Your task to perform on an android device: Go to internet settings Image 0: 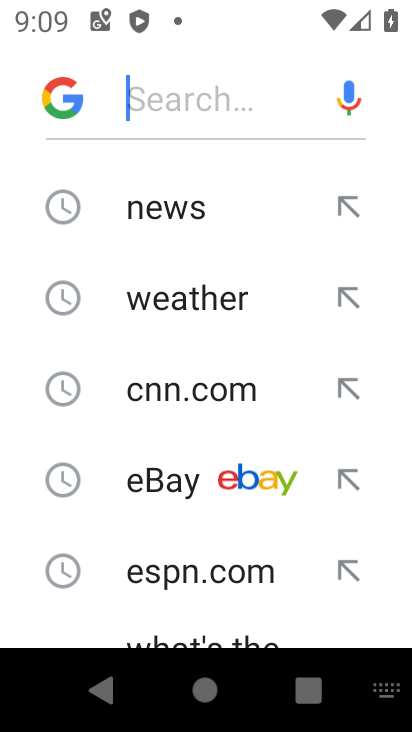
Step 0: press back button
Your task to perform on an android device: Go to internet settings Image 1: 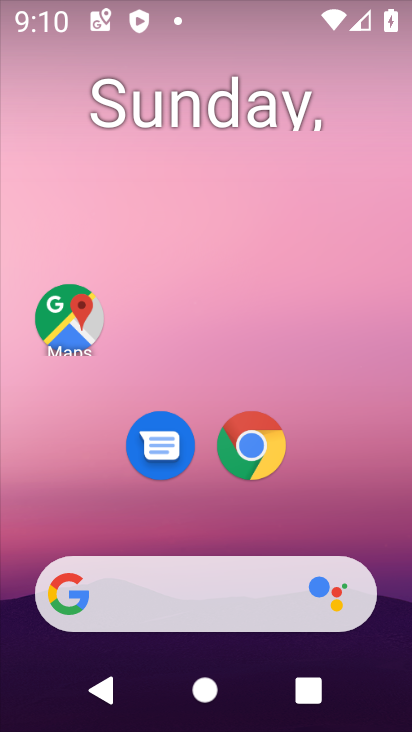
Step 1: drag from (386, 539) to (318, 87)
Your task to perform on an android device: Go to internet settings Image 2: 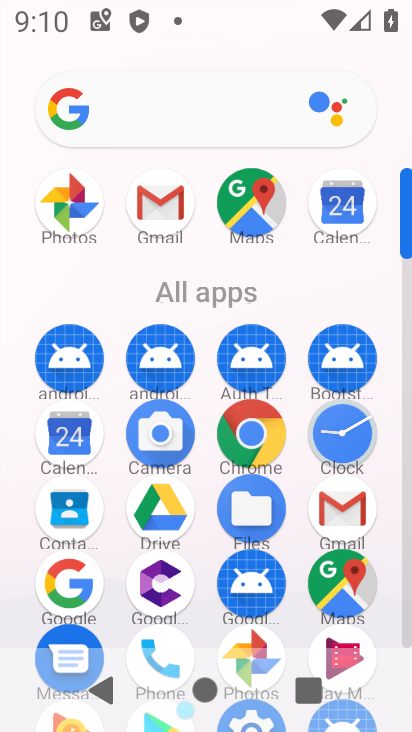
Step 2: click (406, 623)
Your task to perform on an android device: Go to internet settings Image 3: 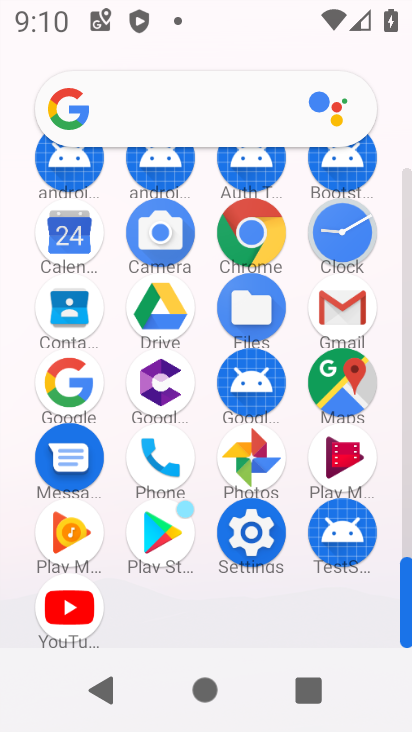
Step 3: click (251, 526)
Your task to perform on an android device: Go to internet settings Image 4: 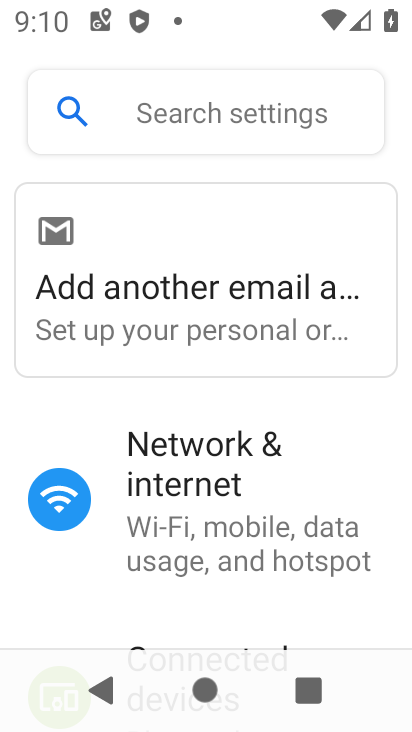
Step 4: drag from (179, 535) to (197, 255)
Your task to perform on an android device: Go to internet settings Image 5: 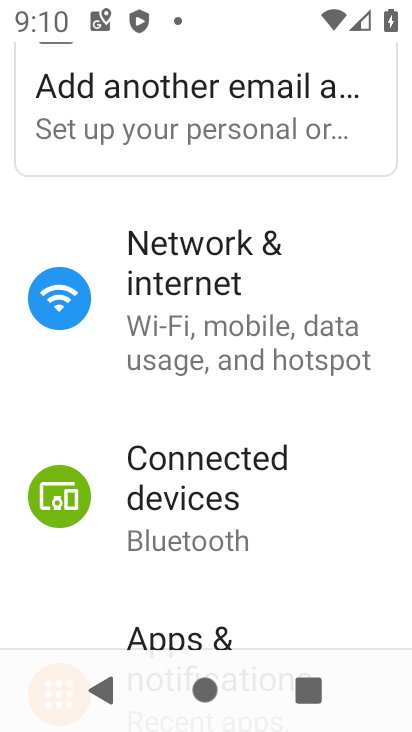
Step 5: click (180, 292)
Your task to perform on an android device: Go to internet settings Image 6: 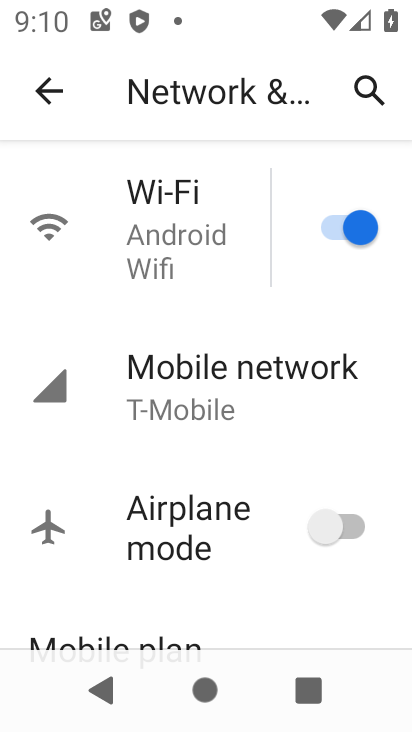
Step 6: click (181, 391)
Your task to perform on an android device: Go to internet settings Image 7: 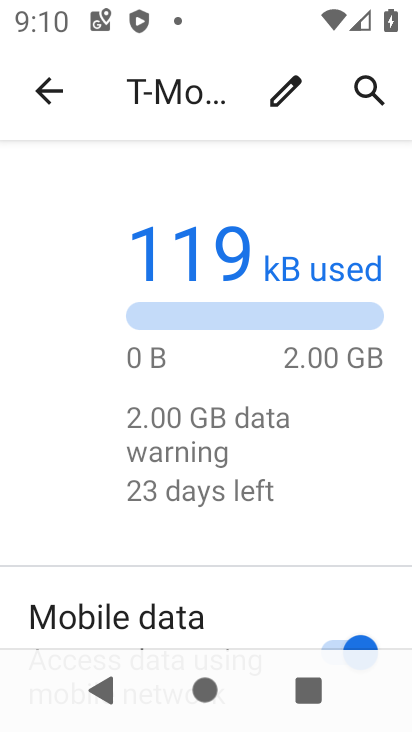
Step 7: task complete